Your task to perform on an android device: turn off notifications in google photos Image 0: 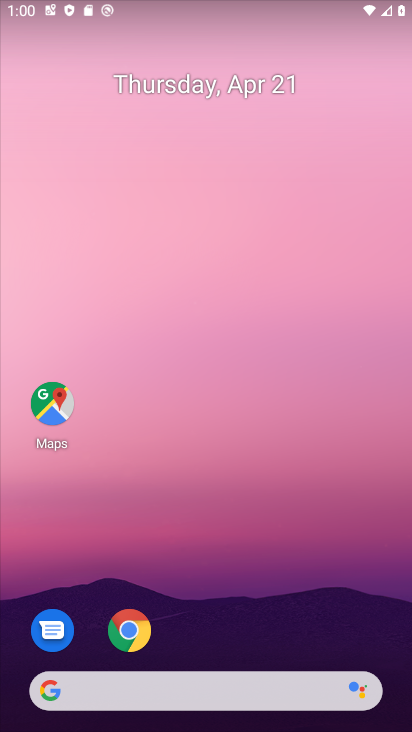
Step 0: drag from (304, 644) to (84, 168)
Your task to perform on an android device: turn off notifications in google photos Image 1: 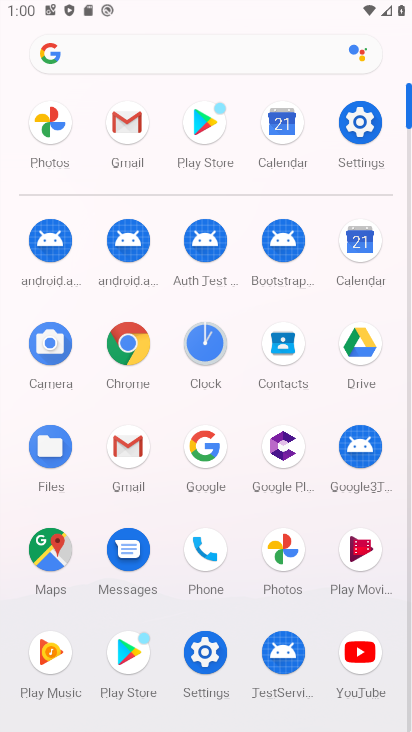
Step 1: click (57, 130)
Your task to perform on an android device: turn off notifications in google photos Image 2: 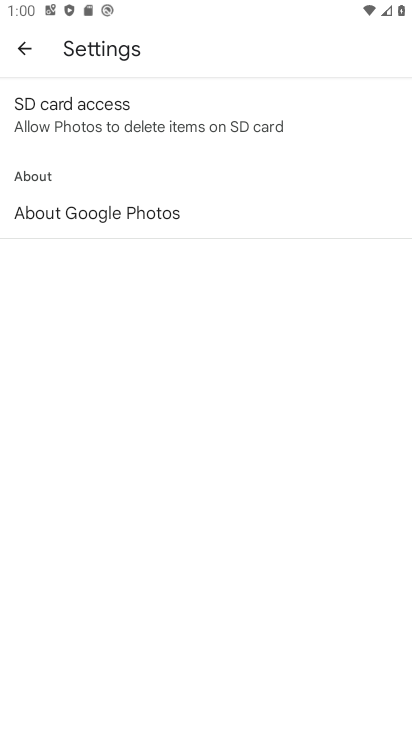
Step 2: click (53, 53)
Your task to perform on an android device: turn off notifications in google photos Image 3: 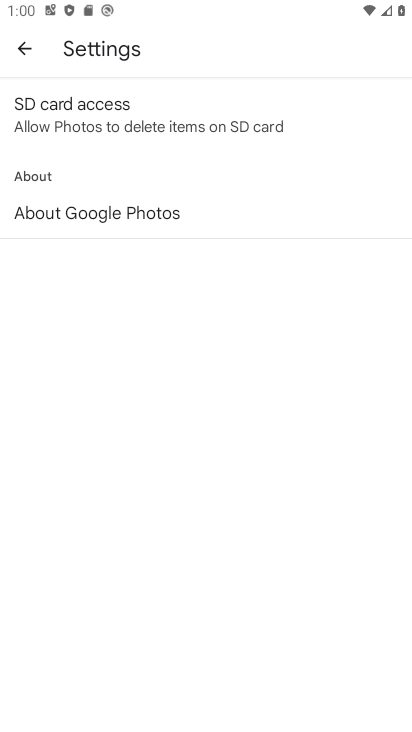
Step 3: click (29, 48)
Your task to perform on an android device: turn off notifications in google photos Image 4: 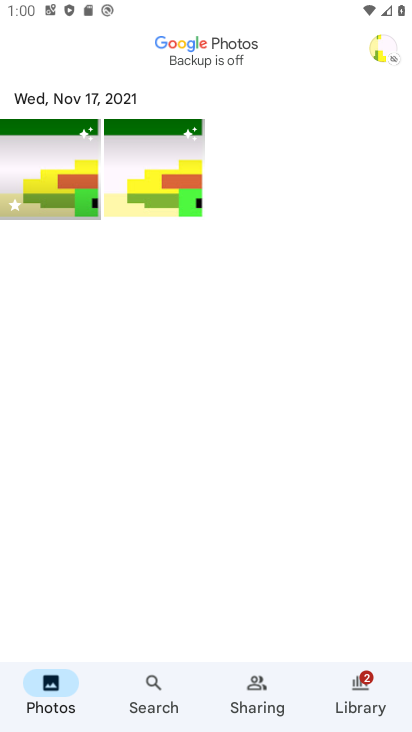
Step 4: click (348, 687)
Your task to perform on an android device: turn off notifications in google photos Image 5: 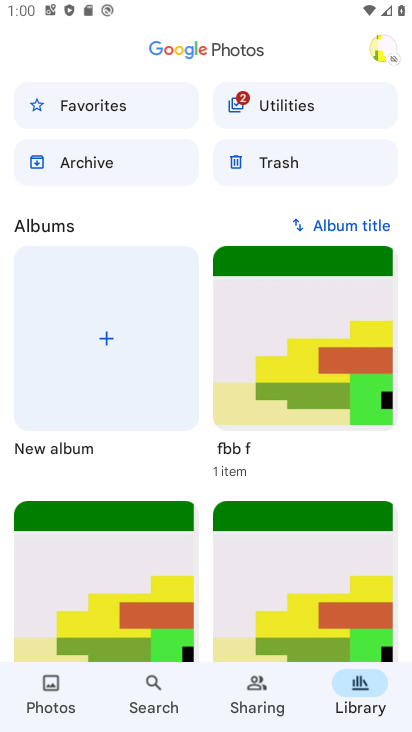
Step 5: click (397, 53)
Your task to perform on an android device: turn off notifications in google photos Image 6: 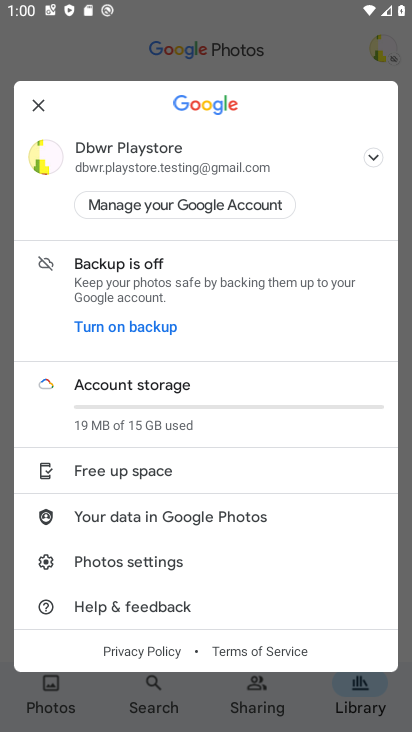
Step 6: click (207, 556)
Your task to perform on an android device: turn off notifications in google photos Image 7: 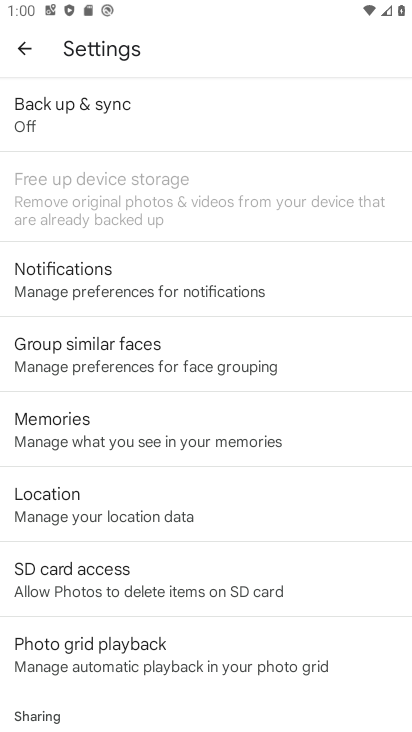
Step 7: click (245, 280)
Your task to perform on an android device: turn off notifications in google photos Image 8: 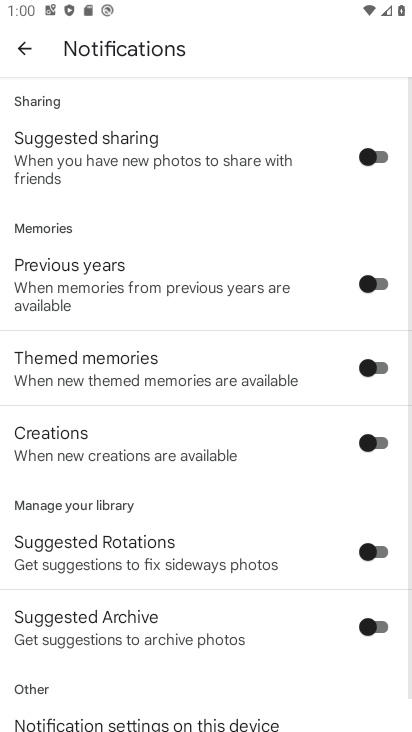
Step 8: click (268, 158)
Your task to perform on an android device: turn off notifications in google photos Image 9: 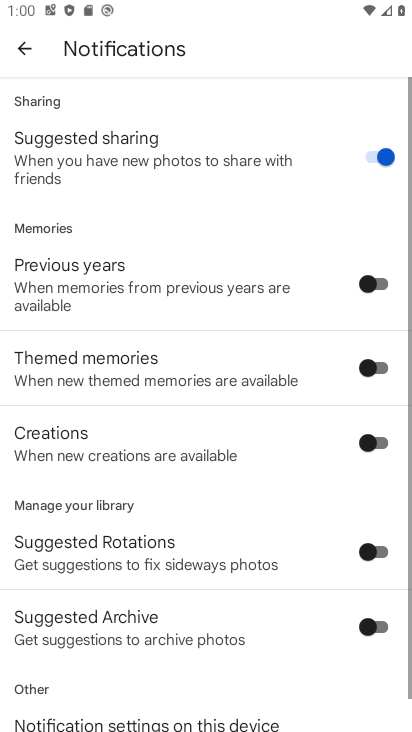
Step 9: task complete